Your task to perform on an android device: open app "Booking.com: Hotels and more" Image 0: 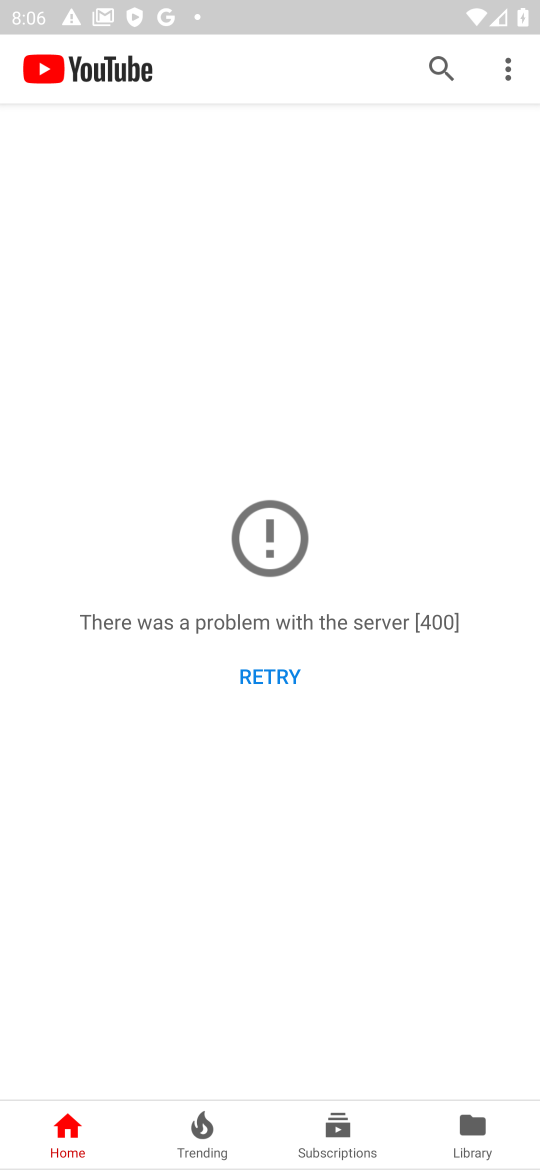
Step 0: press home button
Your task to perform on an android device: open app "Booking.com: Hotels and more" Image 1: 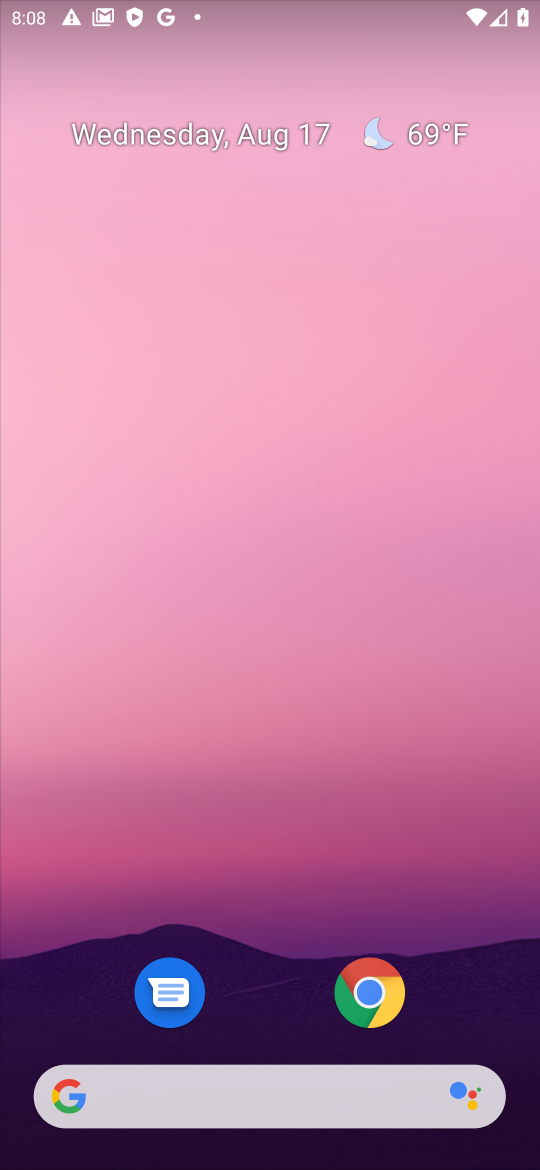
Step 1: drag from (496, 1003) to (280, 41)
Your task to perform on an android device: open app "Booking.com: Hotels and more" Image 2: 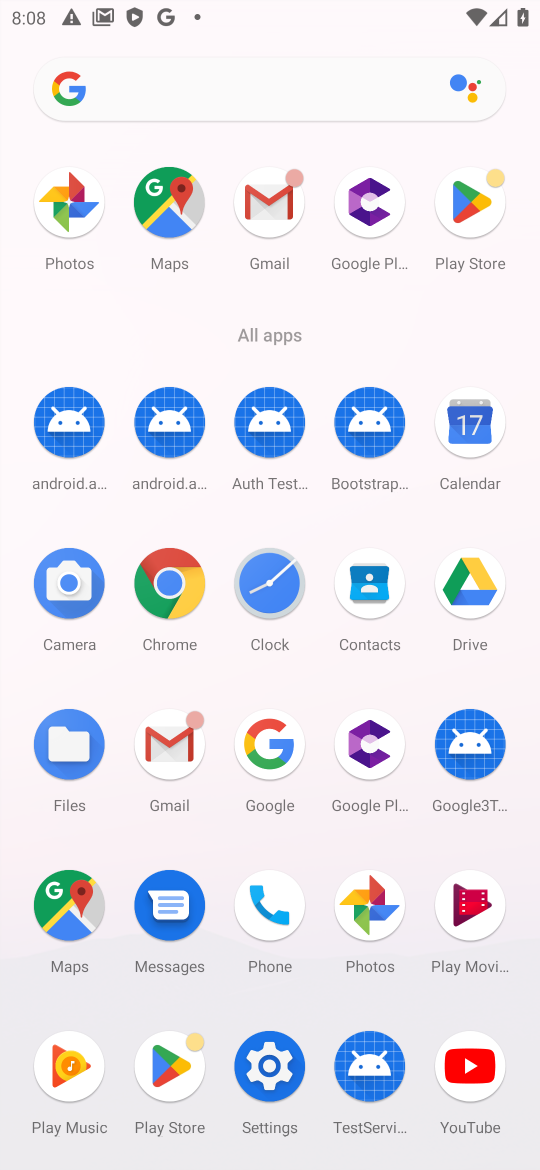
Step 2: click (173, 1080)
Your task to perform on an android device: open app "Booking.com: Hotels and more" Image 3: 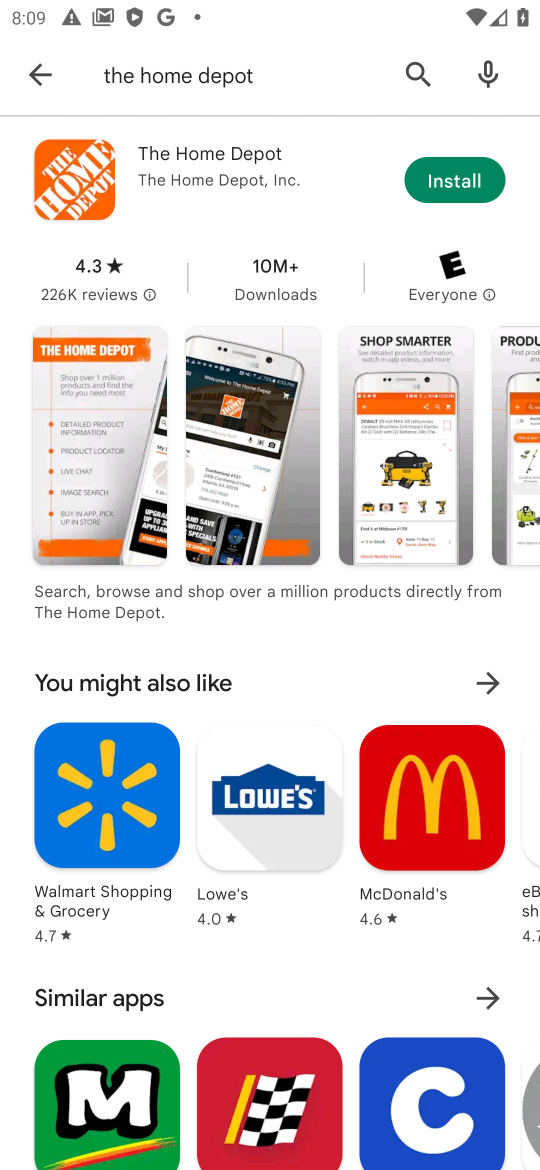
Step 3: press back button
Your task to perform on an android device: open app "Booking.com: Hotels and more" Image 4: 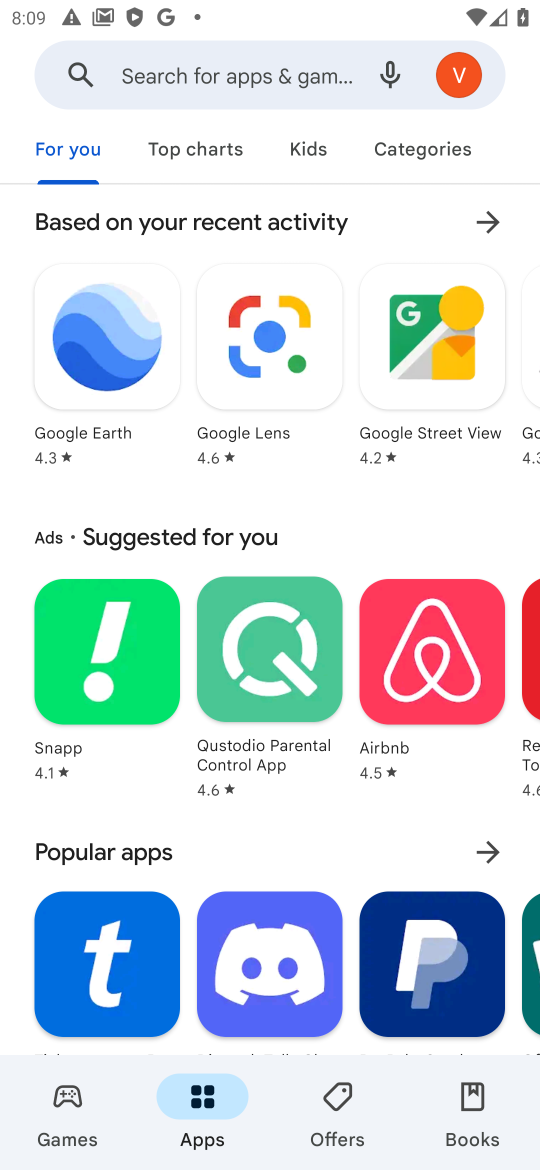
Step 4: click (168, 84)
Your task to perform on an android device: open app "Booking.com: Hotels and more" Image 5: 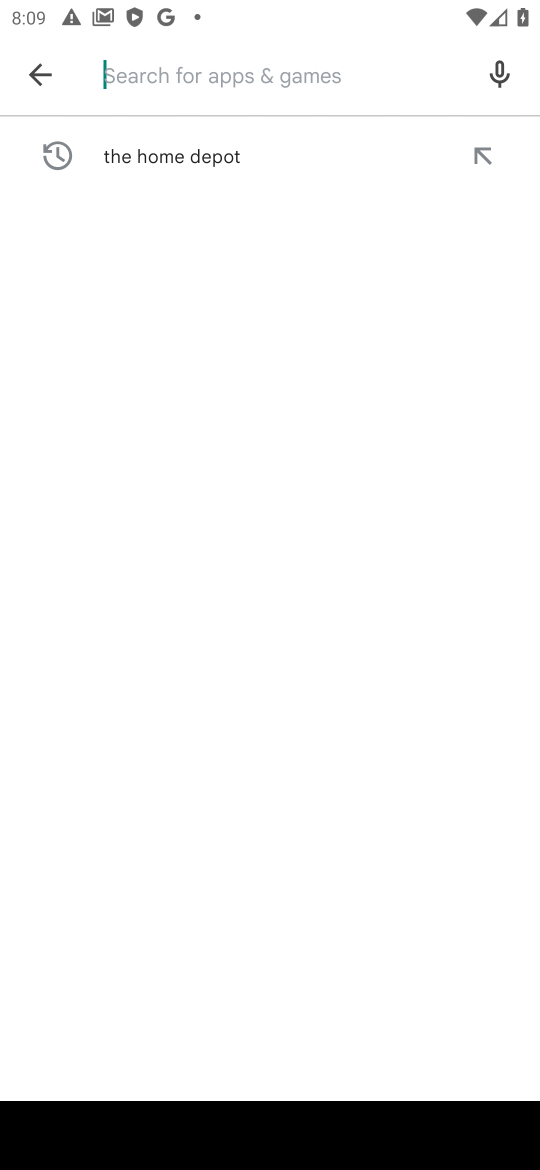
Step 5: type "Booking.com: Hotels and more"
Your task to perform on an android device: open app "Booking.com: Hotels and more" Image 6: 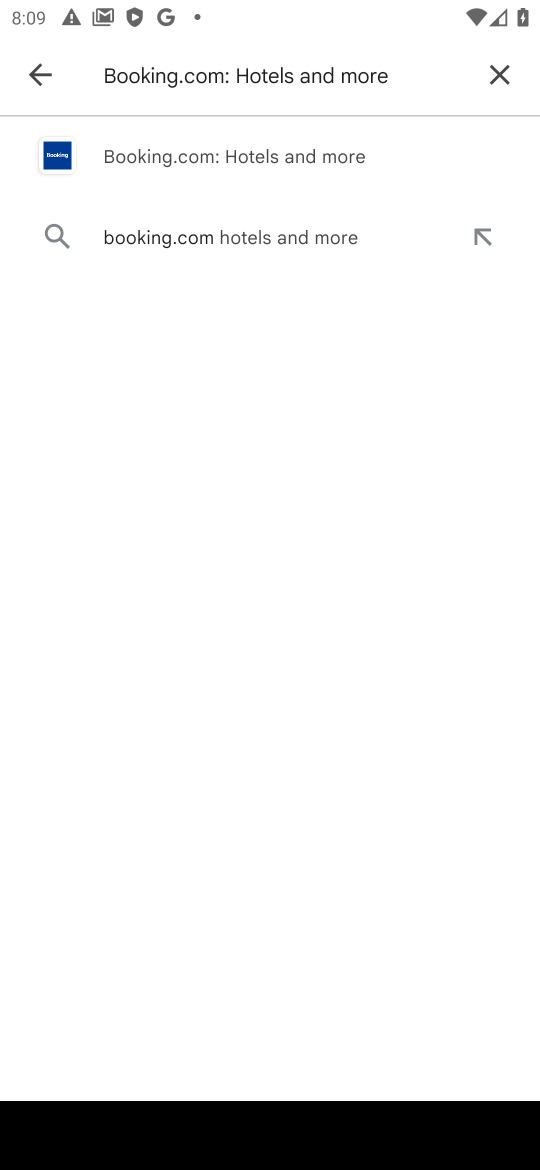
Step 6: click (218, 155)
Your task to perform on an android device: open app "Booking.com: Hotels and more" Image 7: 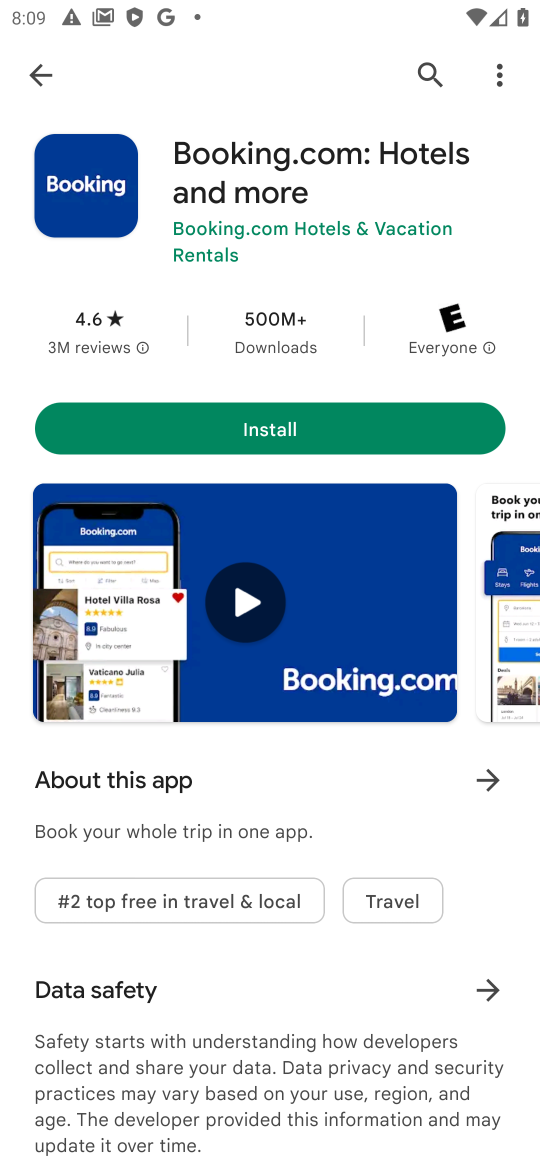
Step 7: task complete